Your task to perform on an android device: Add lg ultragear to the cart on costco, then select checkout. Image 0: 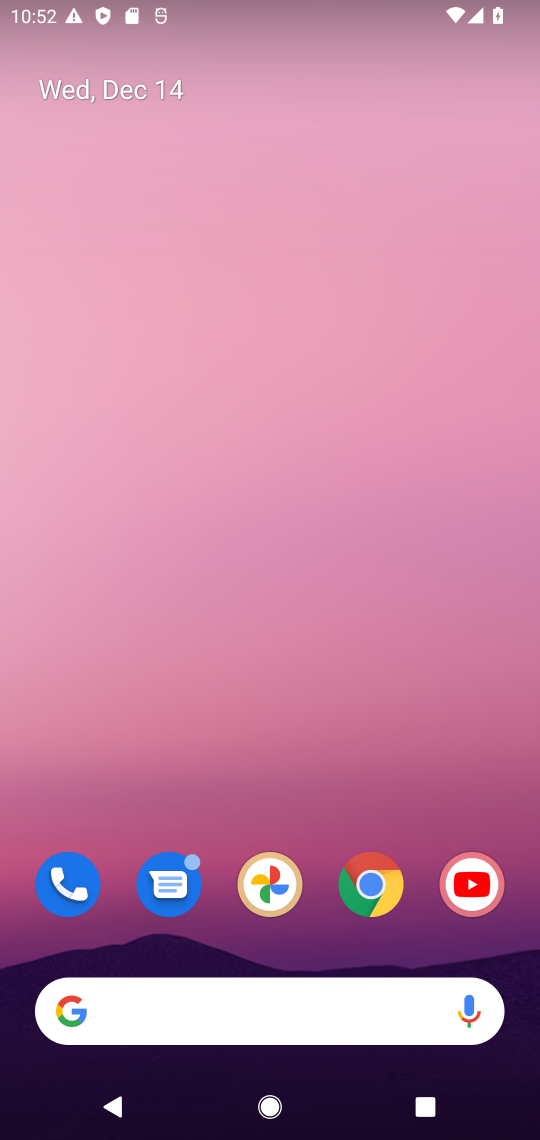
Step 0: click (392, 913)
Your task to perform on an android device: Add lg ultragear to the cart on costco, then select checkout. Image 1: 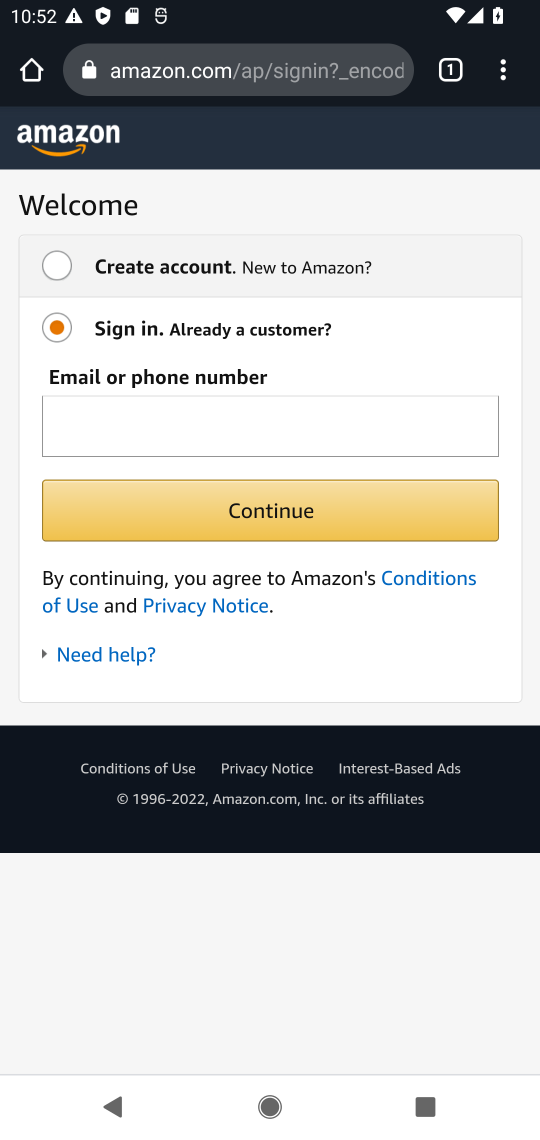
Step 1: click (262, 88)
Your task to perform on an android device: Add lg ultragear to the cart on costco, then select checkout. Image 2: 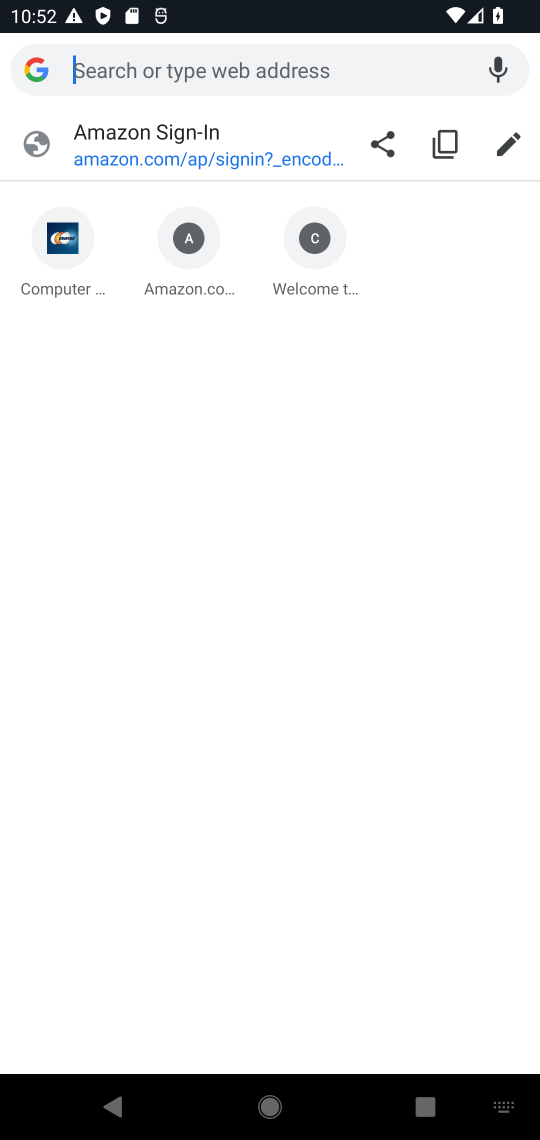
Step 2: type "costco"
Your task to perform on an android device: Add lg ultragear to the cart on costco, then select checkout. Image 3: 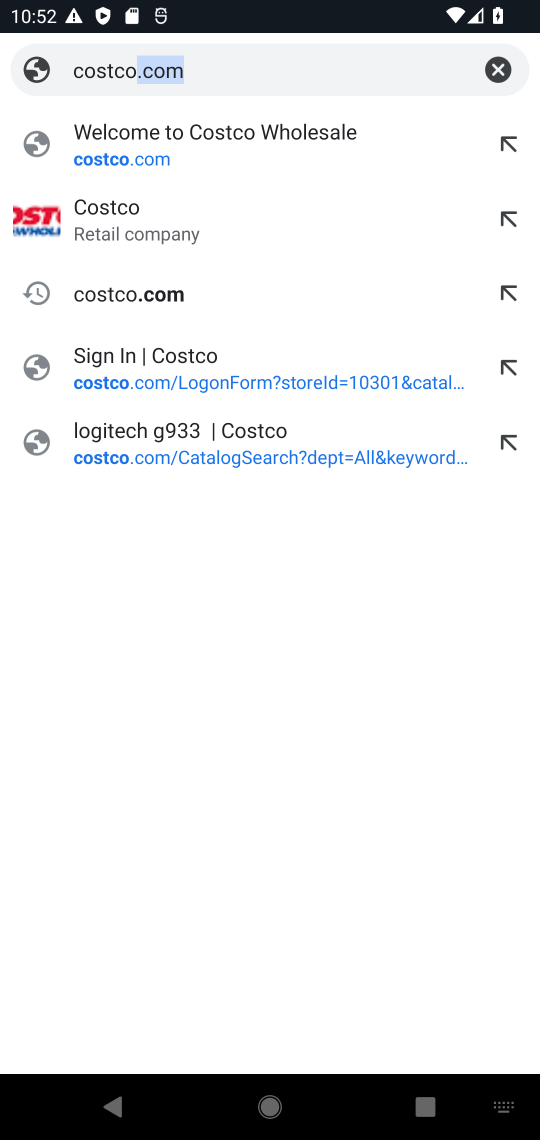
Step 3: click (163, 149)
Your task to perform on an android device: Add lg ultragear to the cart on costco, then select checkout. Image 4: 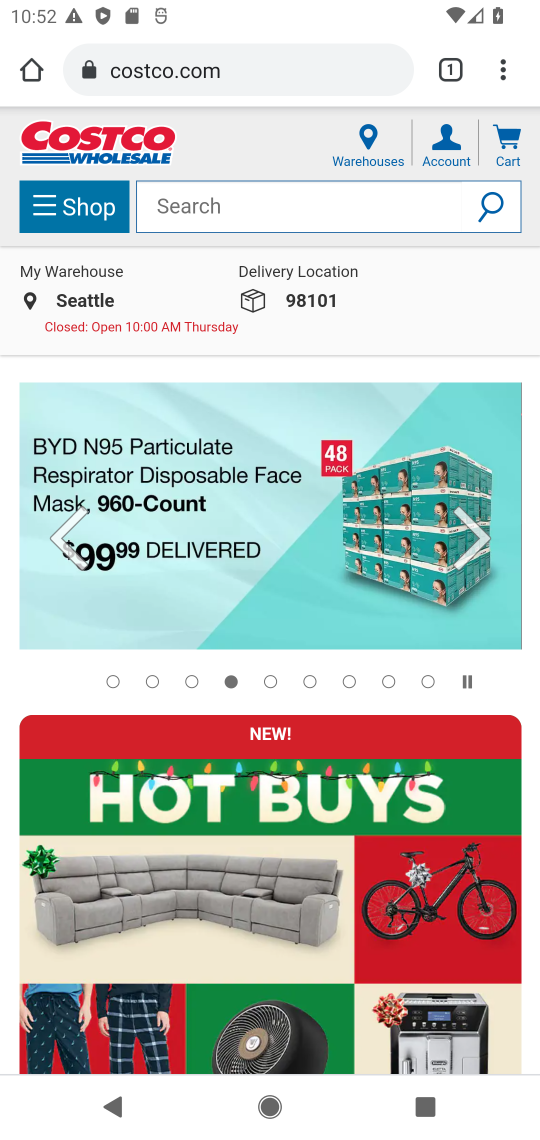
Step 4: click (304, 209)
Your task to perform on an android device: Add lg ultragear to the cart on costco, then select checkout. Image 5: 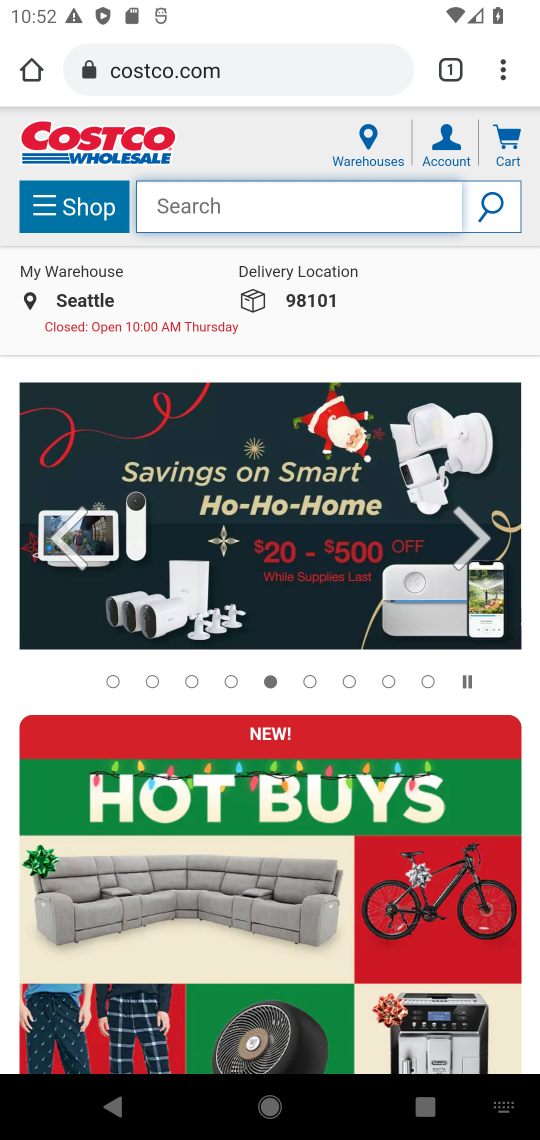
Step 5: type "lg ultragear"
Your task to perform on an android device: Add lg ultragear to the cart on costco, then select checkout. Image 6: 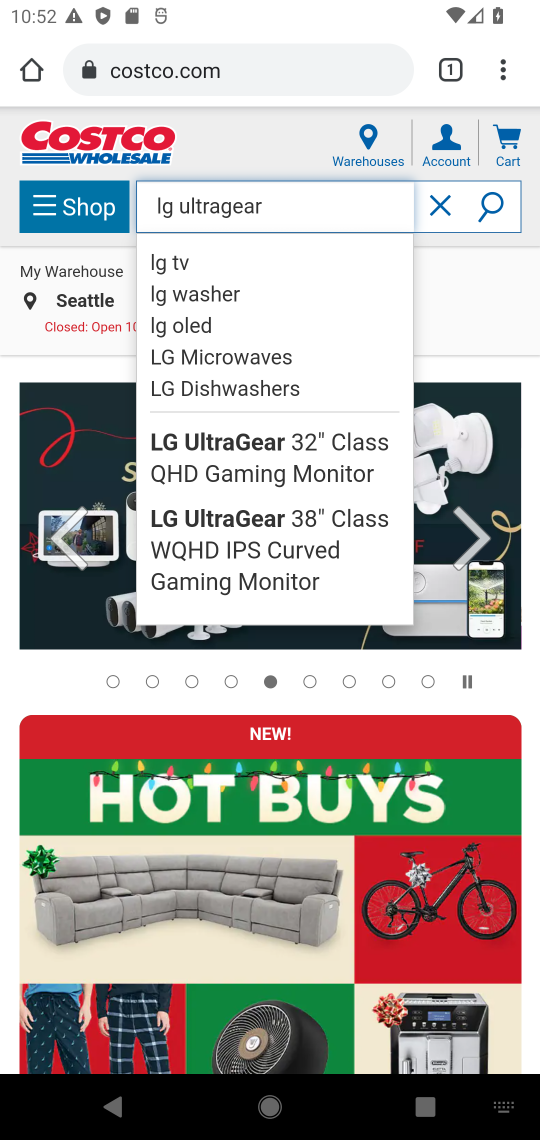
Step 6: press enter
Your task to perform on an android device: Add lg ultragear to the cart on costco, then select checkout. Image 7: 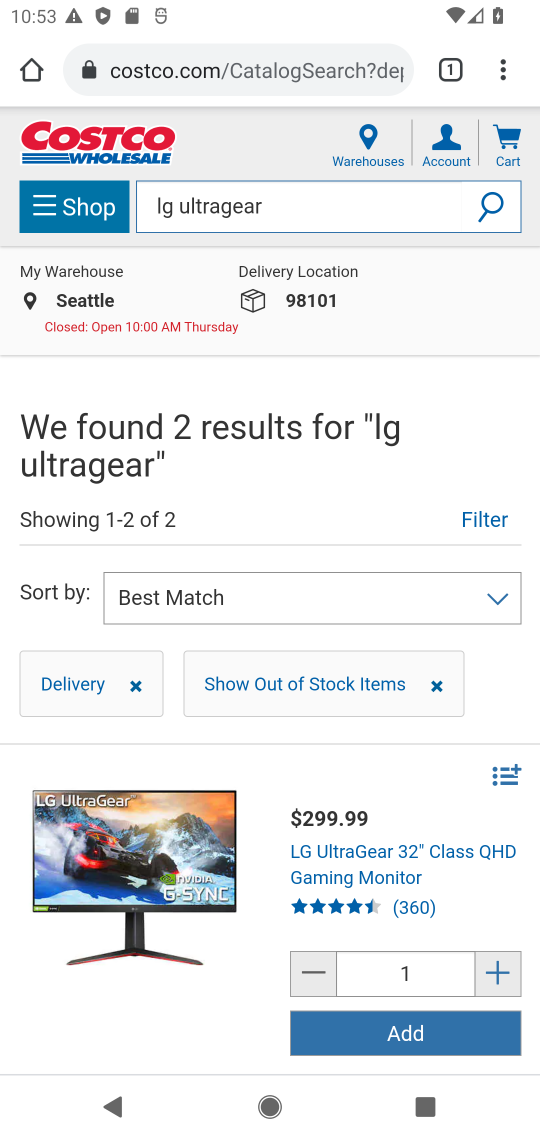
Step 7: click (380, 1041)
Your task to perform on an android device: Add lg ultragear to the cart on costco, then select checkout. Image 8: 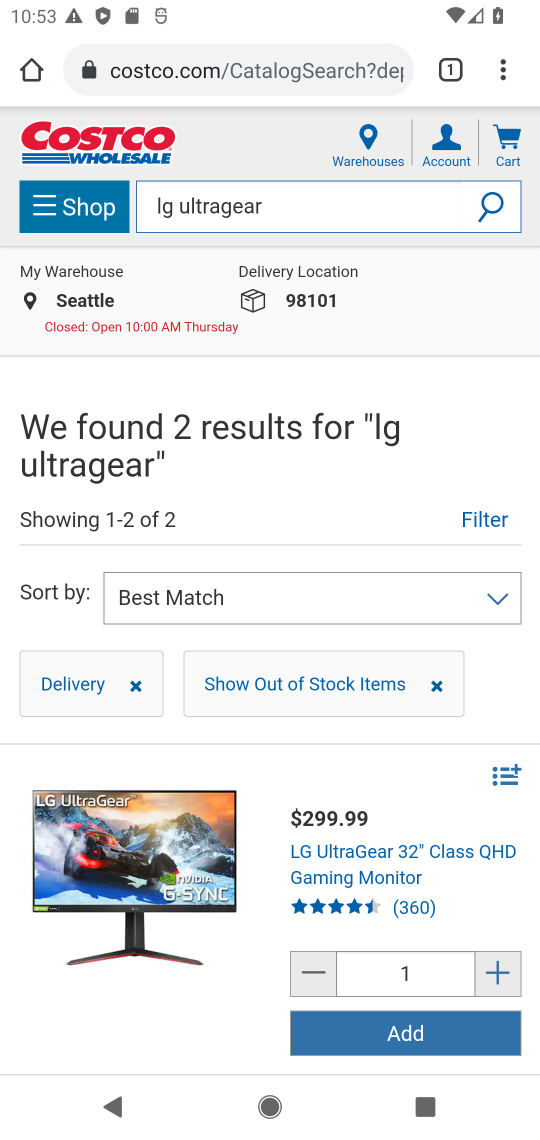
Step 8: click (360, 1035)
Your task to perform on an android device: Add lg ultragear to the cart on costco, then select checkout. Image 9: 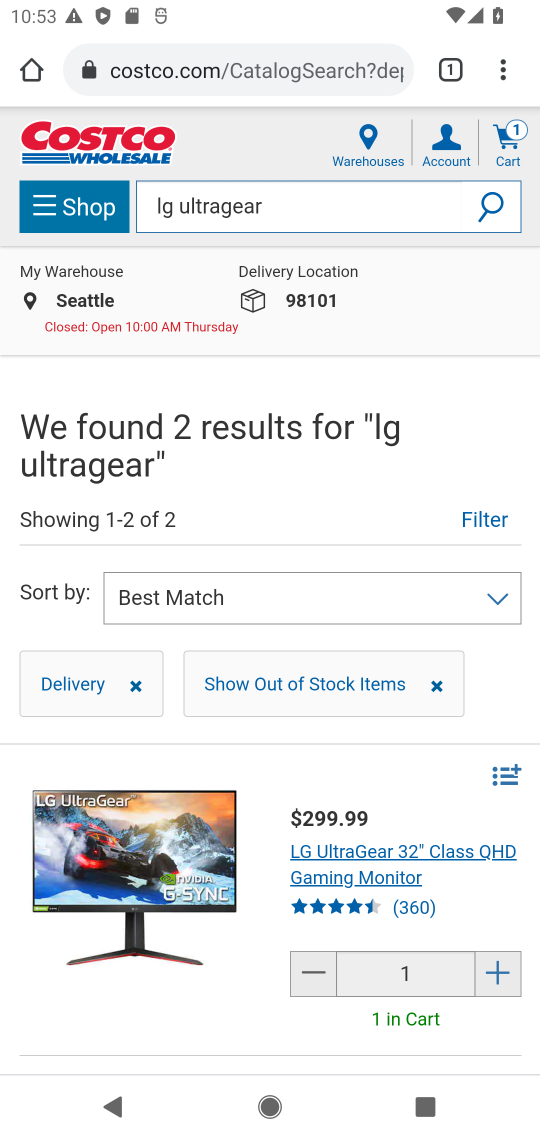
Step 9: click (514, 153)
Your task to perform on an android device: Add lg ultragear to the cart on costco, then select checkout. Image 10: 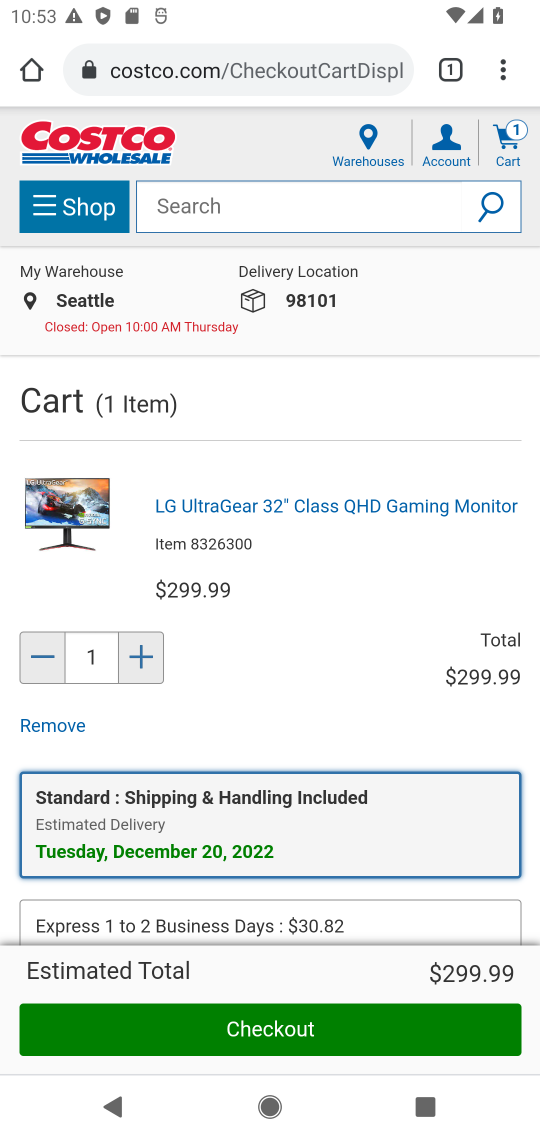
Step 10: click (280, 1036)
Your task to perform on an android device: Add lg ultragear to the cart on costco, then select checkout. Image 11: 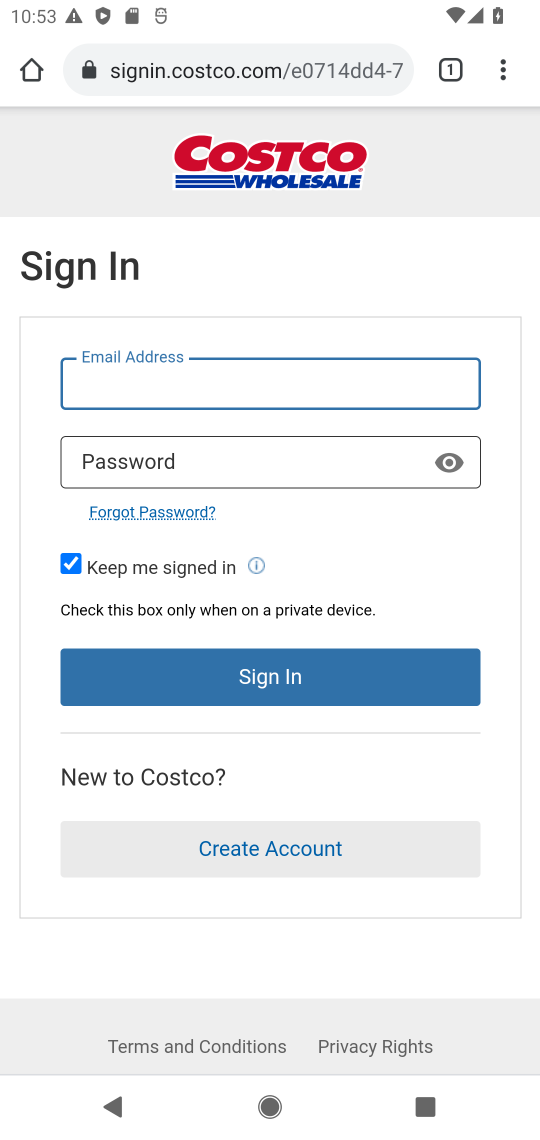
Step 11: task complete